Your task to perform on an android device: Go to privacy settings Image 0: 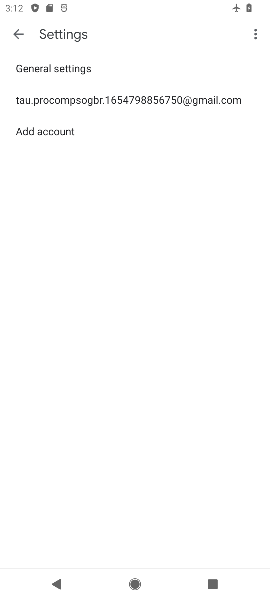
Step 0: press home button
Your task to perform on an android device: Go to privacy settings Image 1: 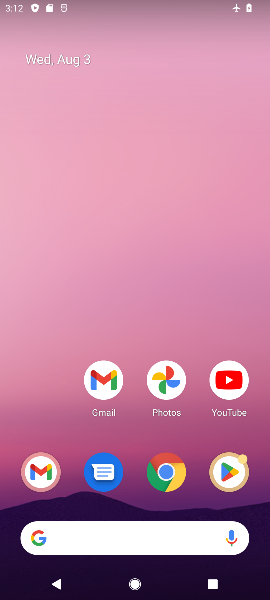
Step 1: drag from (208, 495) to (52, 1)
Your task to perform on an android device: Go to privacy settings Image 2: 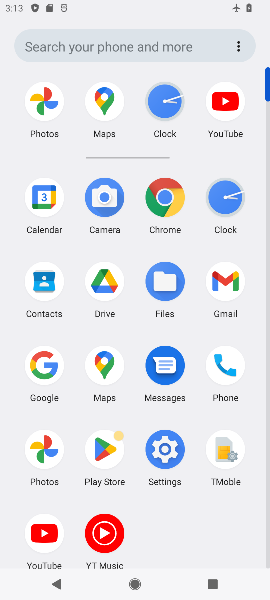
Step 2: click (163, 444)
Your task to perform on an android device: Go to privacy settings Image 3: 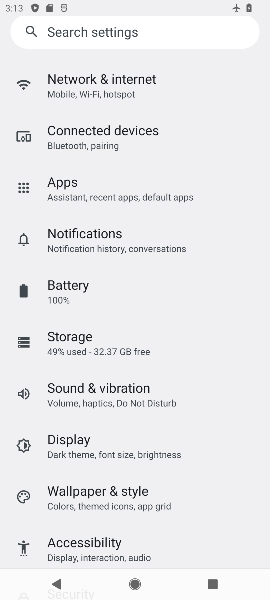
Step 3: drag from (39, 459) to (67, 170)
Your task to perform on an android device: Go to privacy settings Image 4: 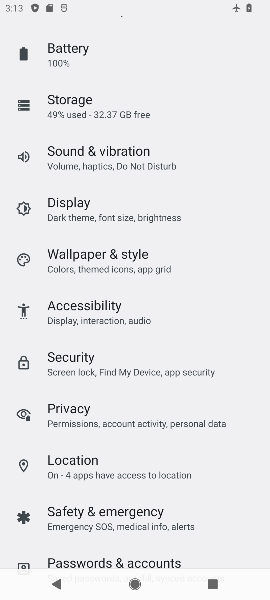
Step 4: click (90, 425)
Your task to perform on an android device: Go to privacy settings Image 5: 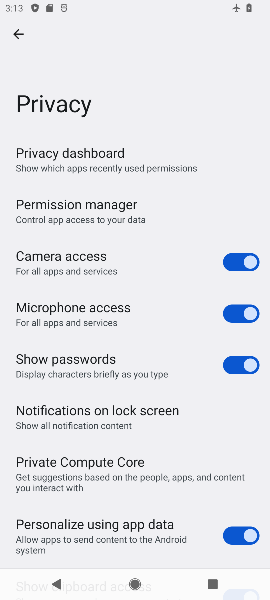
Step 5: task complete